Your task to perform on an android device: change the upload size in google photos Image 0: 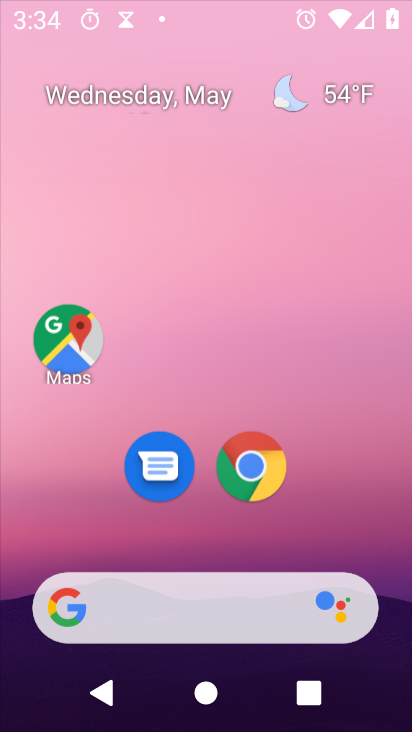
Step 0: click (258, 466)
Your task to perform on an android device: change the upload size in google photos Image 1: 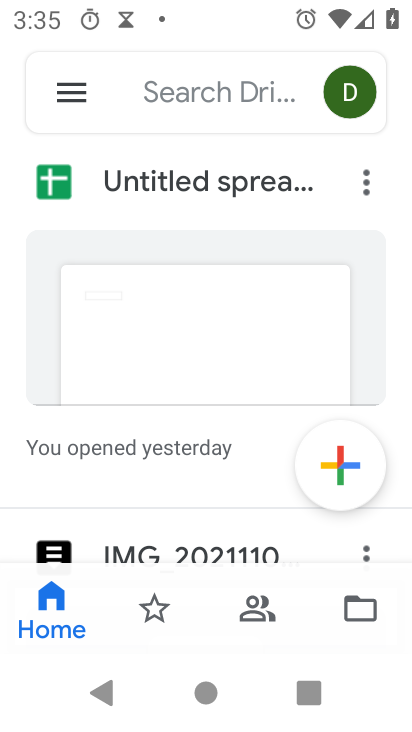
Step 1: press home button
Your task to perform on an android device: change the upload size in google photos Image 2: 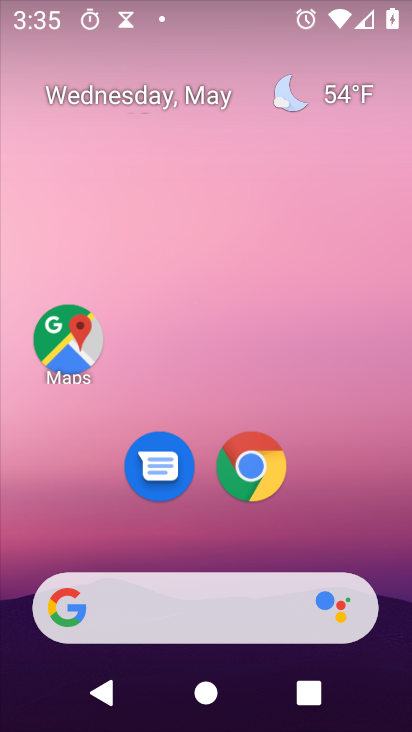
Step 2: drag from (392, 515) to (323, 174)
Your task to perform on an android device: change the upload size in google photos Image 3: 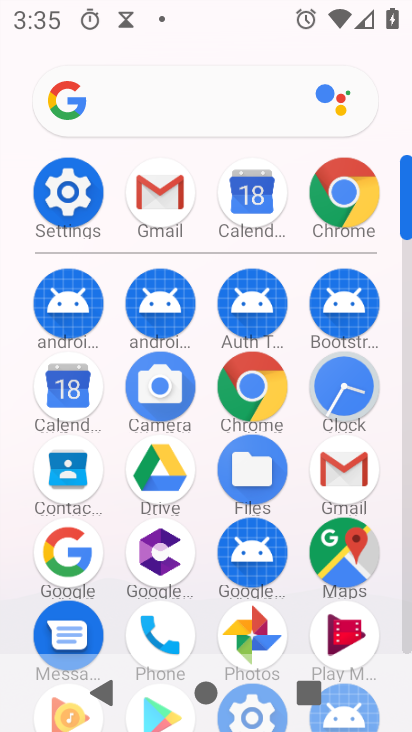
Step 3: click (268, 647)
Your task to perform on an android device: change the upload size in google photos Image 4: 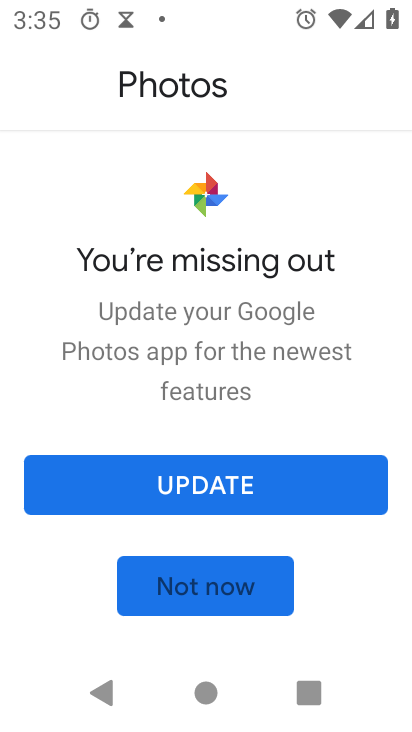
Step 4: click (260, 480)
Your task to perform on an android device: change the upload size in google photos Image 5: 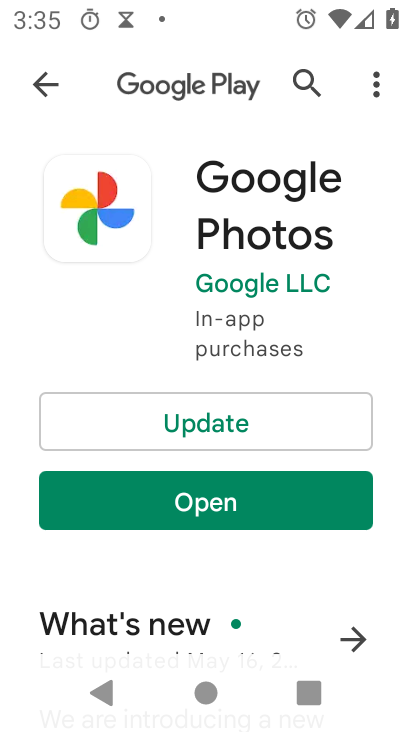
Step 5: click (276, 416)
Your task to perform on an android device: change the upload size in google photos Image 6: 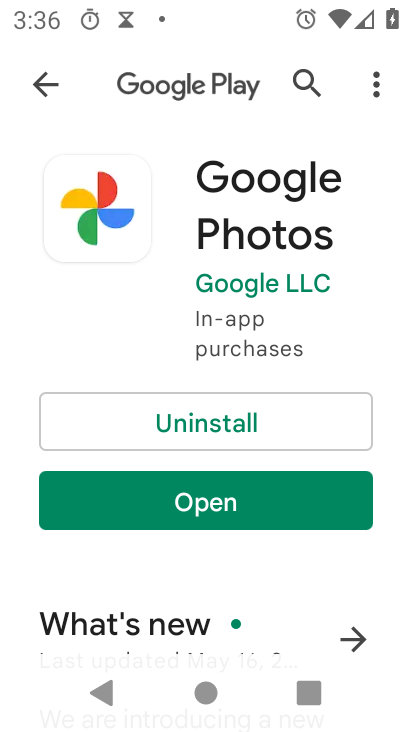
Step 6: click (302, 507)
Your task to perform on an android device: change the upload size in google photos Image 7: 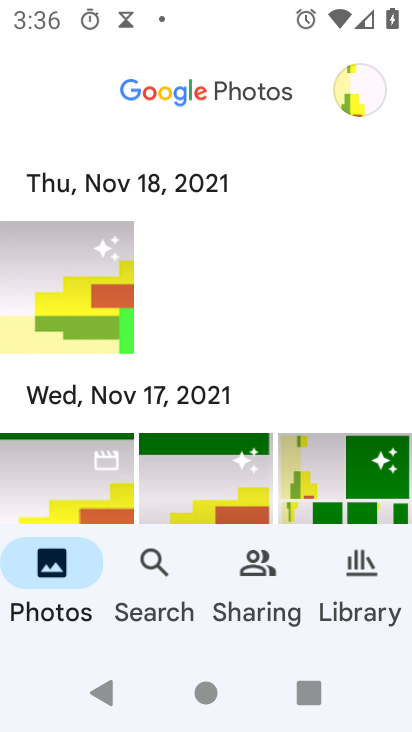
Step 7: click (367, 88)
Your task to perform on an android device: change the upload size in google photos Image 8: 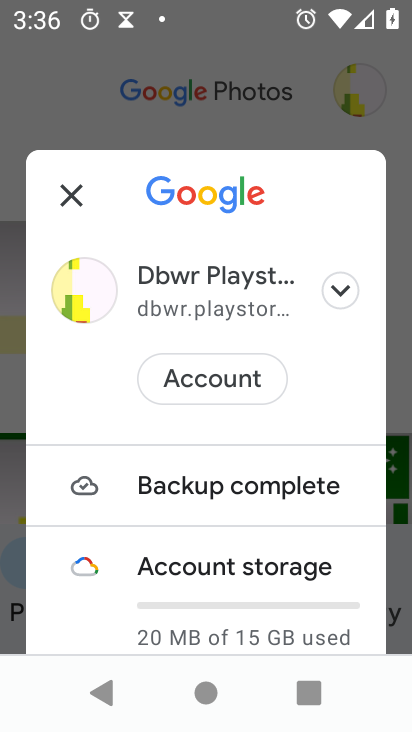
Step 8: drag from (304, 564) to (257, 210)
Your task to perform on an android device: change the upload size in google photos Image 9: 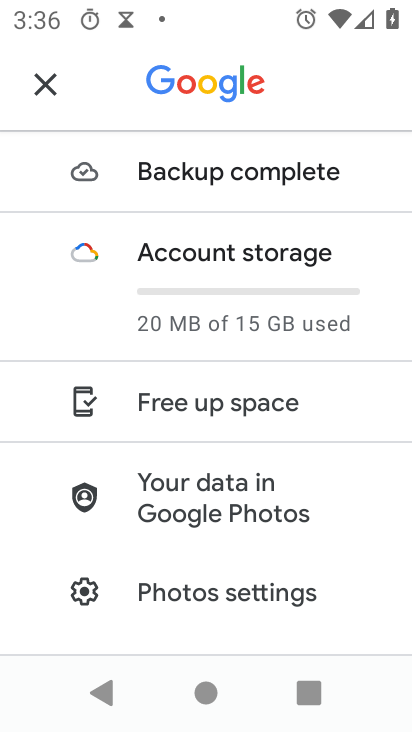
Step 9: click (291, 596)
Your task to perform on an android device: change the upload size in google photos Image 10: 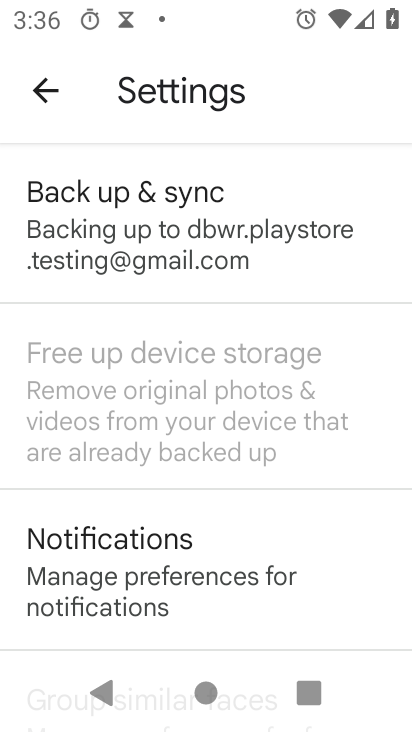
Step 10: drag from (291, 596) to (258, 647)
Your task to perform on an android device: change the upload size in google photos Image 11: 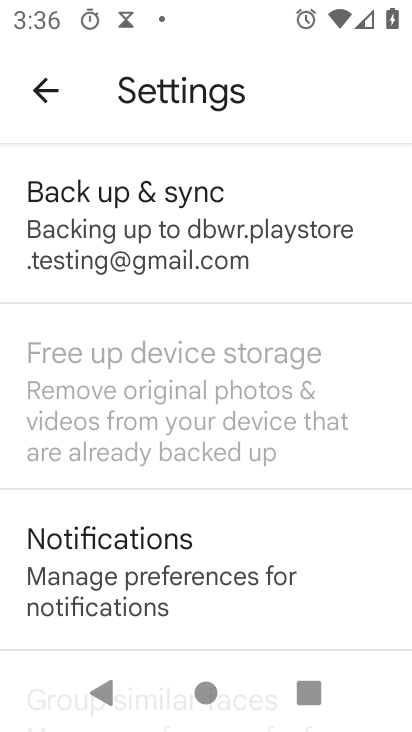
Step 11: click (218, 253)
Your task to perform on an android device: change the upload size in google photos Image 12: 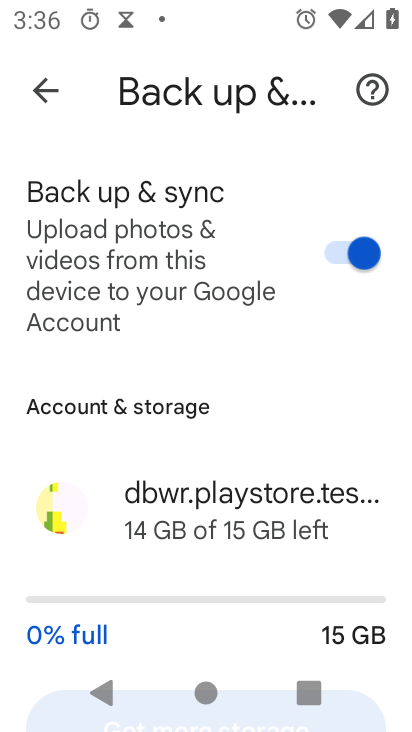
Step 12: drag from (224, 577) to (167, 182)
Your task to perform on an android device: change the upload size in google photos Image 13: 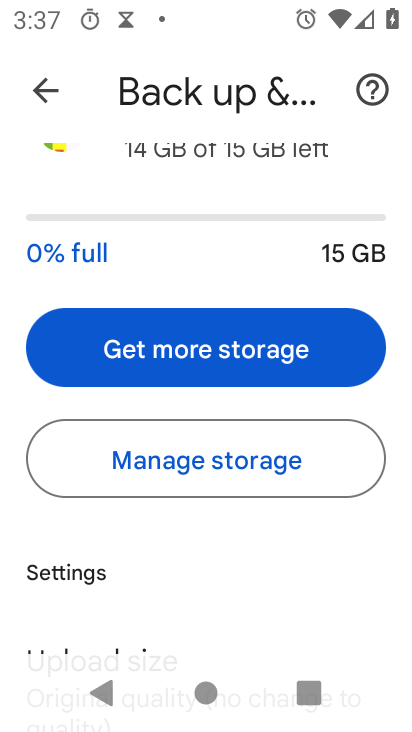
Step 13: drag from (201, 551) to (201, 245)
Your task to perform on an android device: change the upload size in google photos Image 14: 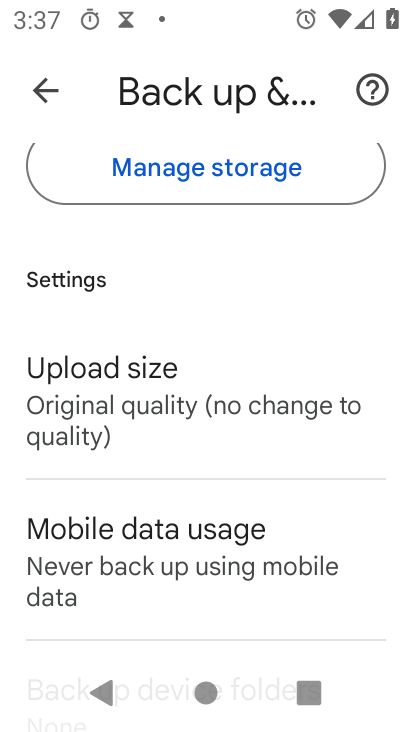
Step 14: click (202, 412)
Your task to perform on an android device: change the upload size in google photos Image 15: 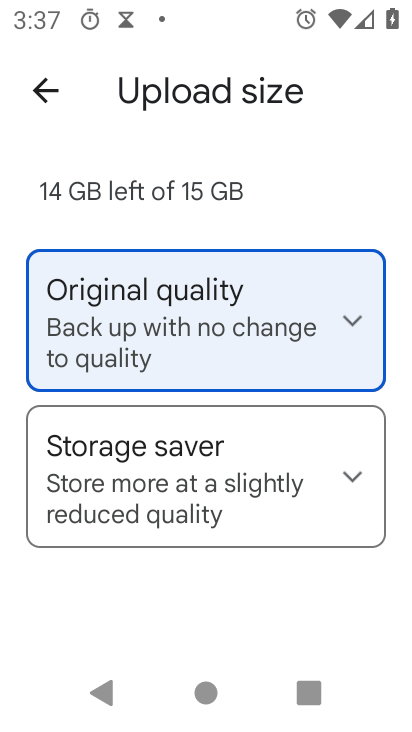
Step 15: click (206, 436)
Your task to perform on an android device: change the upload size in google photos Image 16: 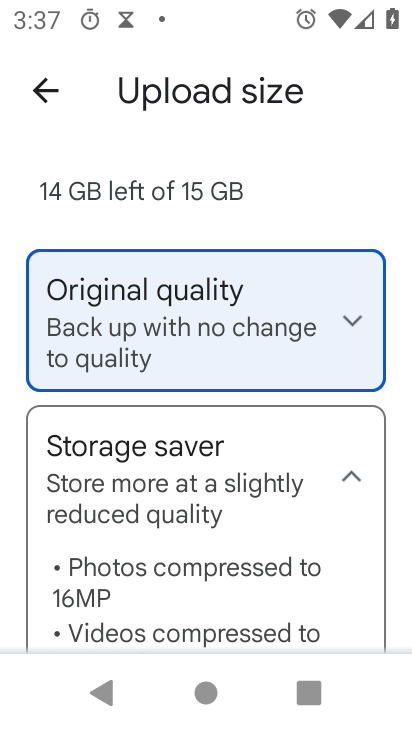
Step 16: drag from (204, 529) to (283, 183)
Your task to perform on an android device: change the upload size in google photos Image 17: 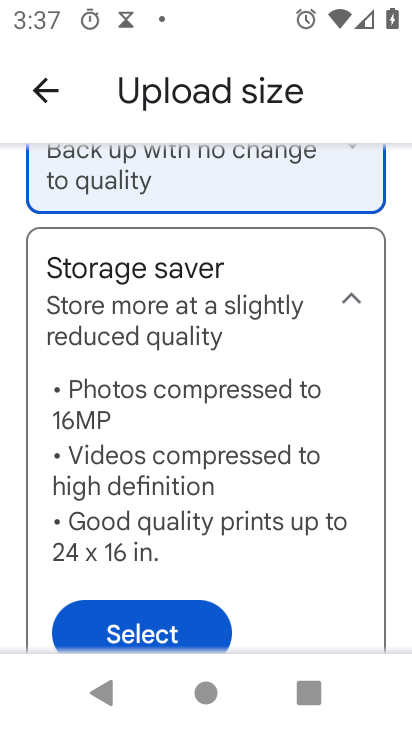
Step 17: click (194, 626)
Your task to perform on an android device: change the upload size in google photos Image 18: 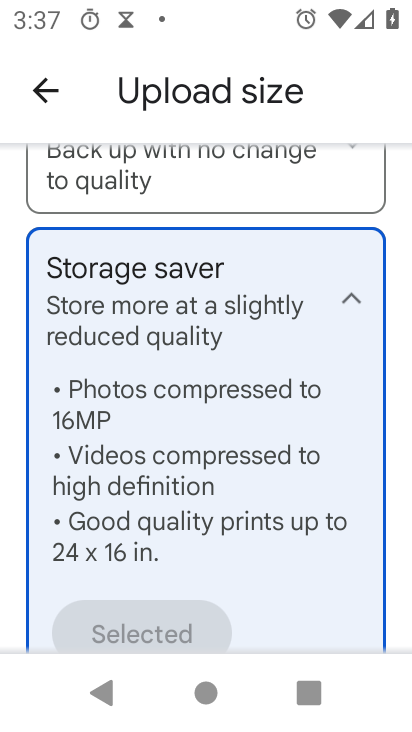
Step 18: task complete